Your task to perform on an android device: turn off airplane mode Image 0: 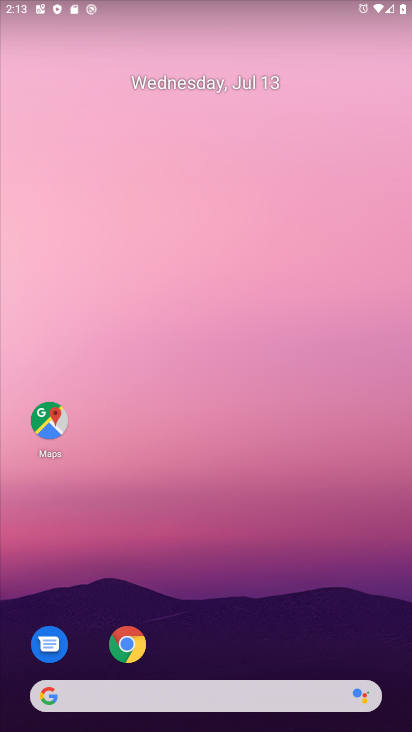
Step 0: drag from (194, 676) to (139, 55)
Your task to perform on an android device: turn off airplane mode Image 1: 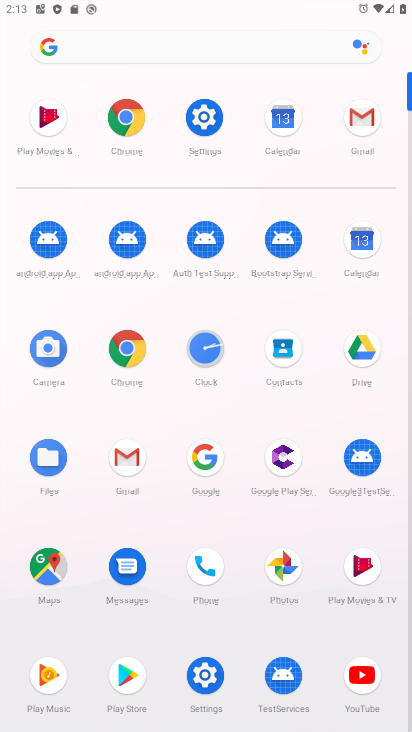
Step 1: click (202, 123)
Your task to perform on an android device: turn off airplane mode Image 2: 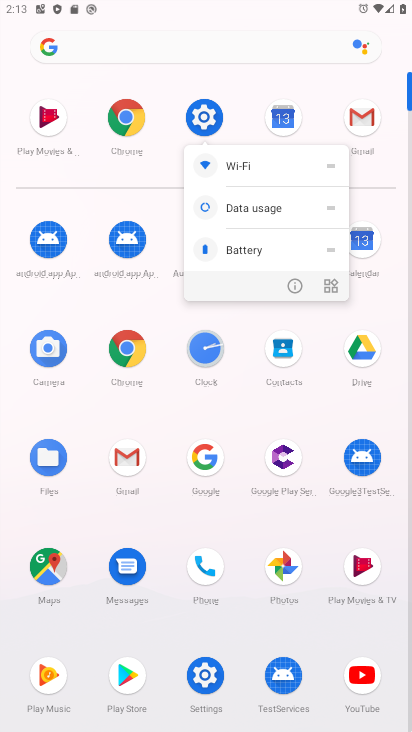
Step 2: click (204, 118)
Your task to perform on an android device: turn off airplane mode Image 3: 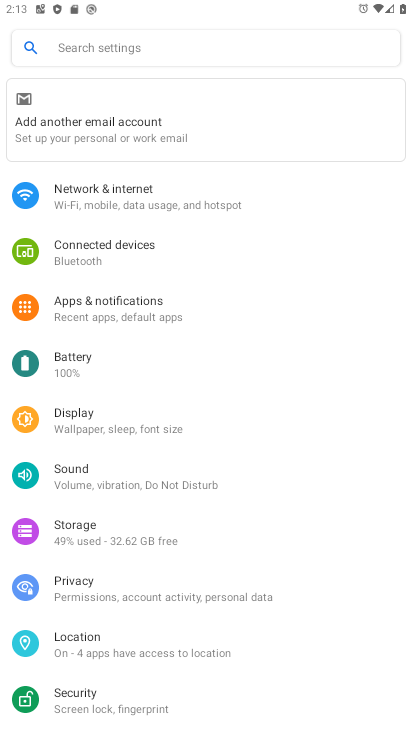
Step 3: click (130, 189)
Your task to perform on an android device: turn off airplane mode Image 4: 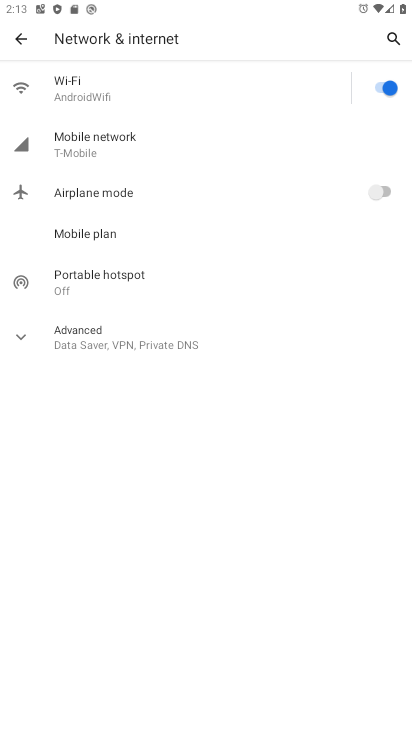
Step 4: task complete